Your task to perform on an android device: Open maps Image 0: 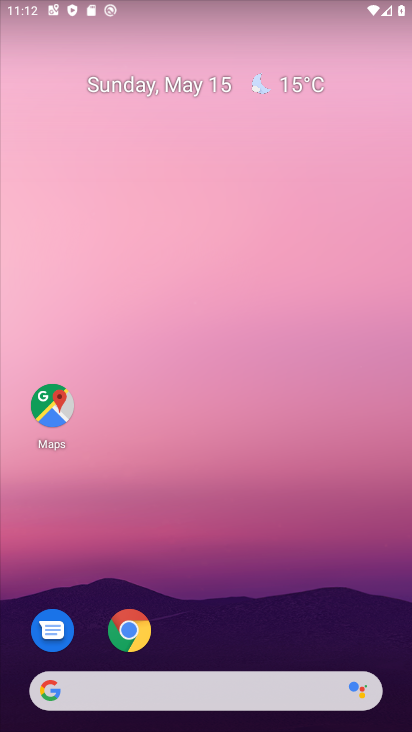
Step 0: drag from (192, 715) to (190, 148)
Your task to perform on an android device: Open maps Image 1: 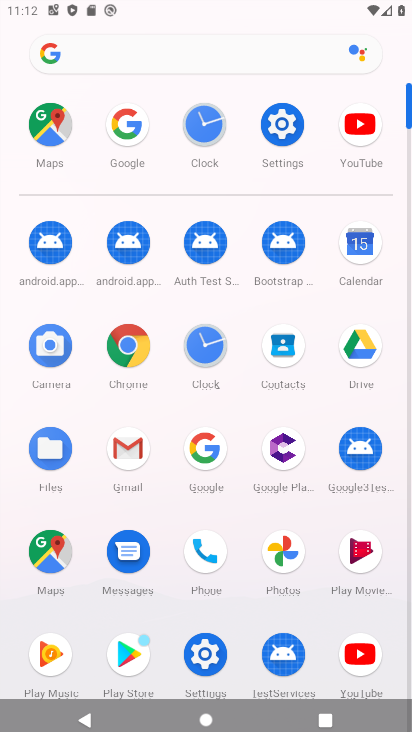
Step 1: click (44, 551)
Your task to perform on an android device: Open maps Image 2: 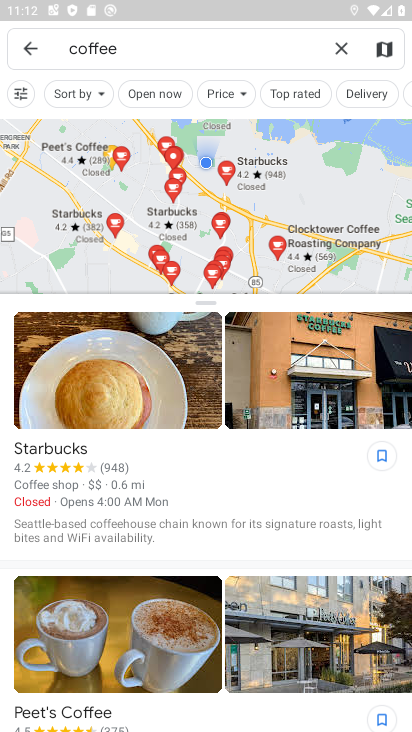
Step 2: task complete